Your task to perform on an android device: turn off notifications settings in the gmail app Image 0: 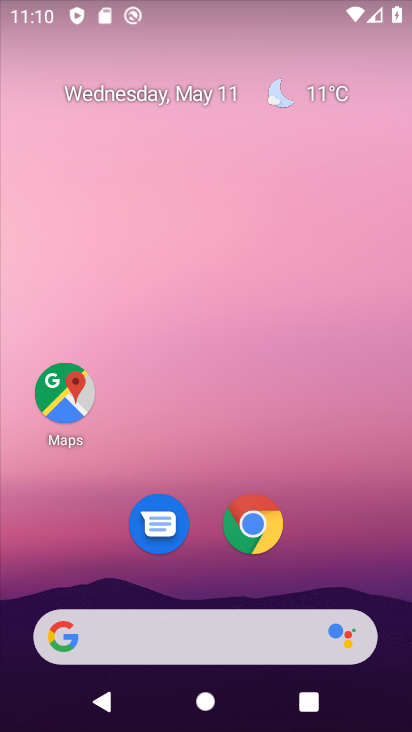
Step 0: drag from (290, 547) to (278, 67)
Your task to perform on an android device: turn off notifications settings in the gmail app Image 1: 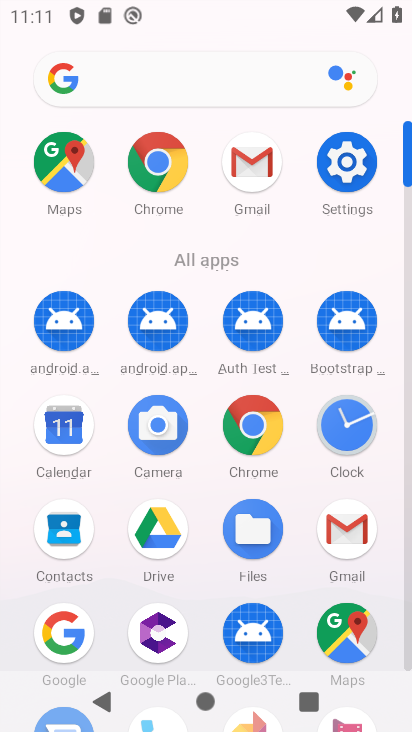
Step 1: click (260, 174)
Your task to perform on an android device: turn off notifications settings in the gmail app Image 2: 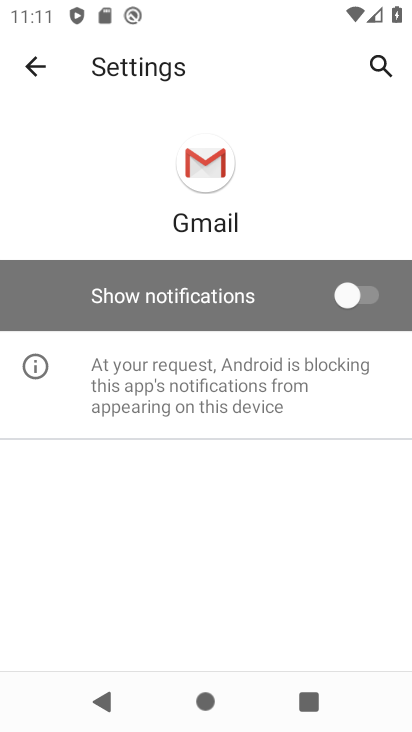
Step 2: task complete